Your task to perform on an android device: toggle wifi Image 0: 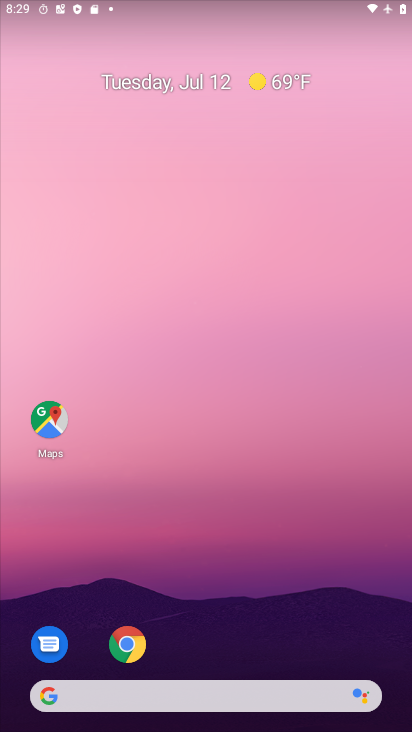
Step 0: press home button
Your task to perform on an android device: toggle wifi Image 1: 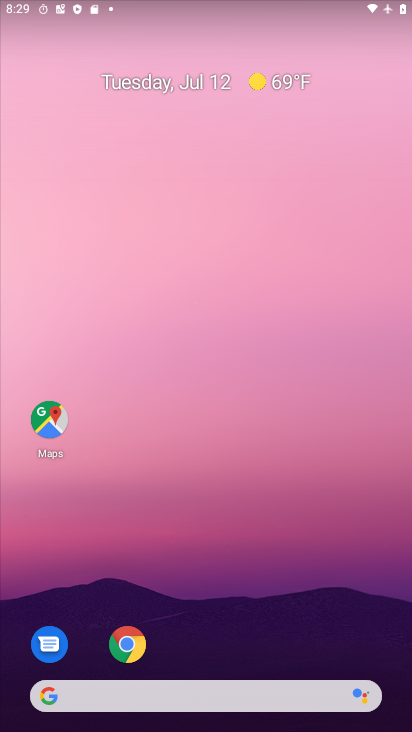
Step 1: drag from (217, 660) to (211, 33)
Your task to perform on an android device: toggle wifi Image 2: 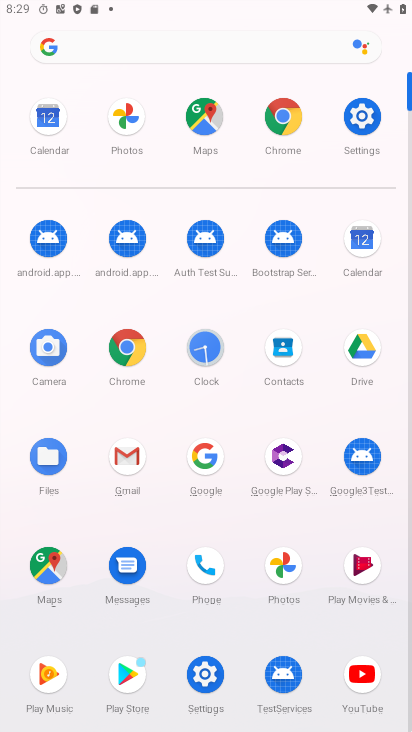
Step 2: click (359, 111)
Your task to perform on an android device: toggle wifi Image 3: 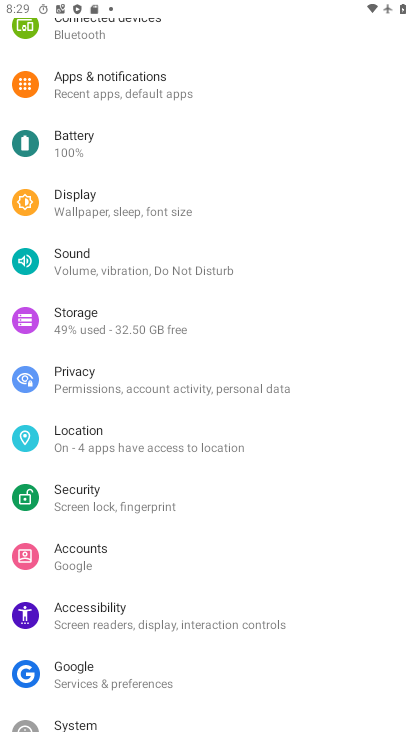
Step 3: drag from (140, 108) to (164, 643)
Your task to perform on an android device: toggle wifi Image 4: 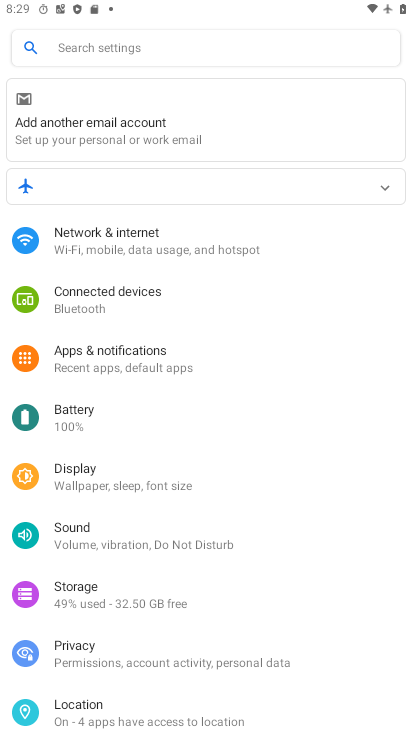
Step 4: click (178, 233)
Your task to perform on an android device: toggle wifi Image 5: 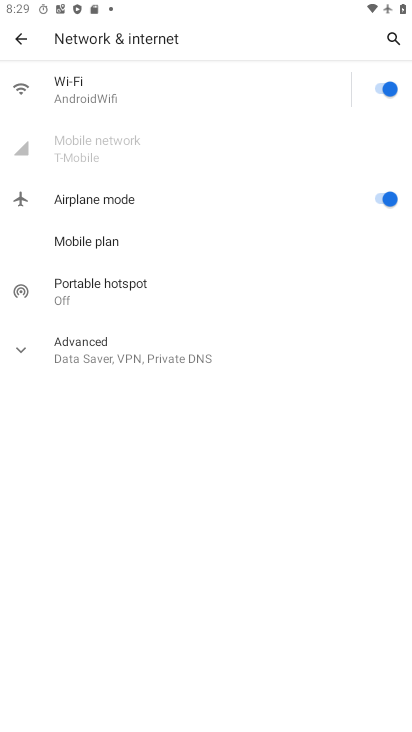
Step 5: click (178, 85)
Your task to perform on an android device: toggle wifi Image 6: 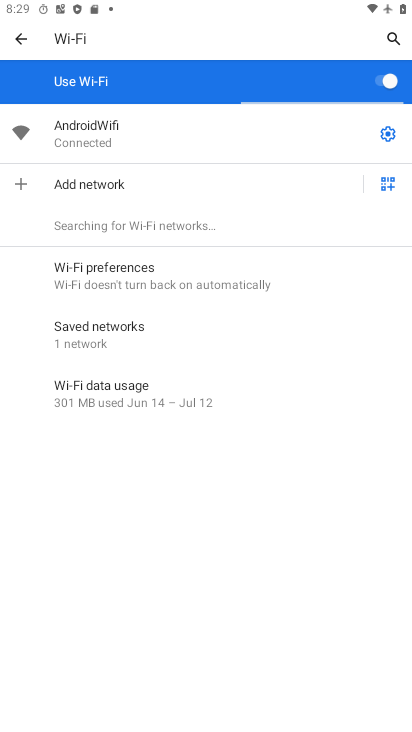
Step 6: click (380, 79)
Your task to perform on an android device: toggle wifi Image 7: 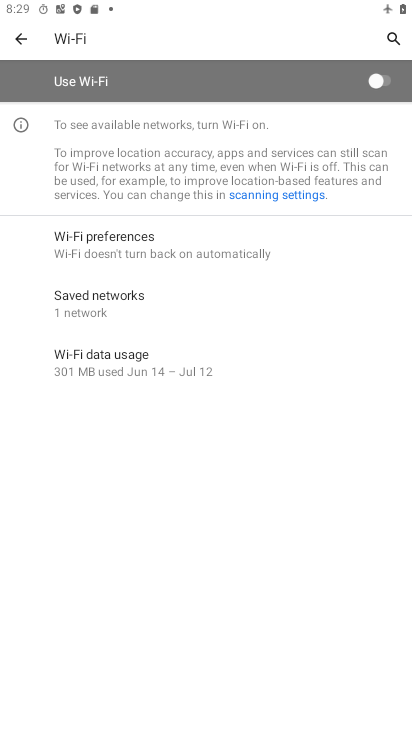
Step 7: task complete